Your task to perform on an android device: Do I have any events this weekend? Image 0: 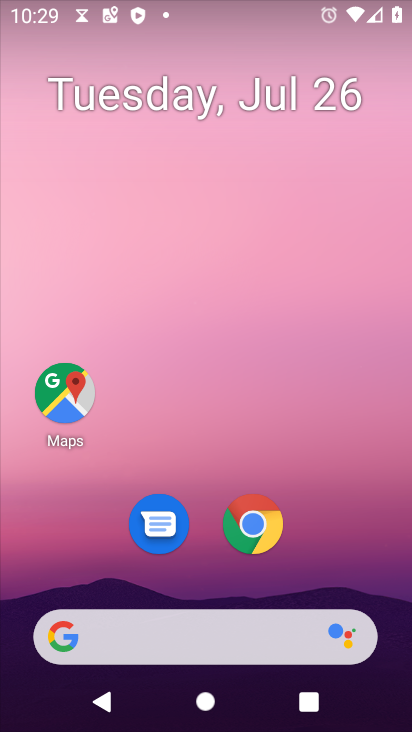
Step 0: press home button
Your task to perform on an android device: Do I have any events this weekend? Image 1: 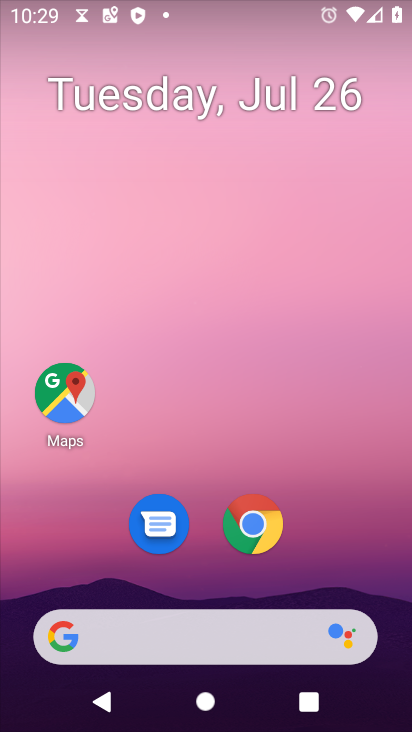
Step 1: drag from (190, 626) to (286, 64)
Your task to perform on an android device: Do I have any events this weekend? Image 2: 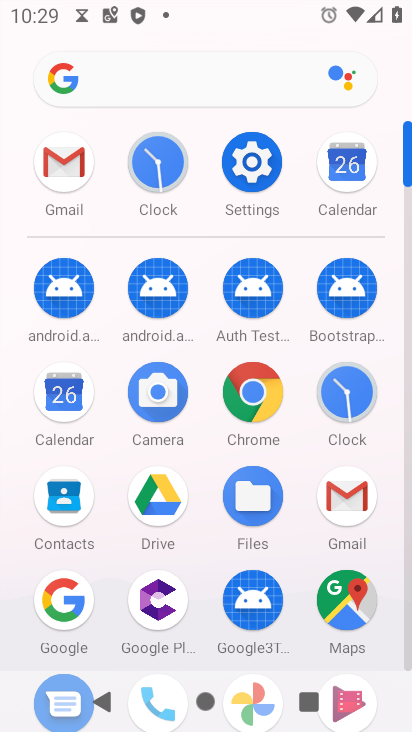
Step 2: click (61, 399)
Your task to perform on an android device: Do I have any events this weekend? Image 3: 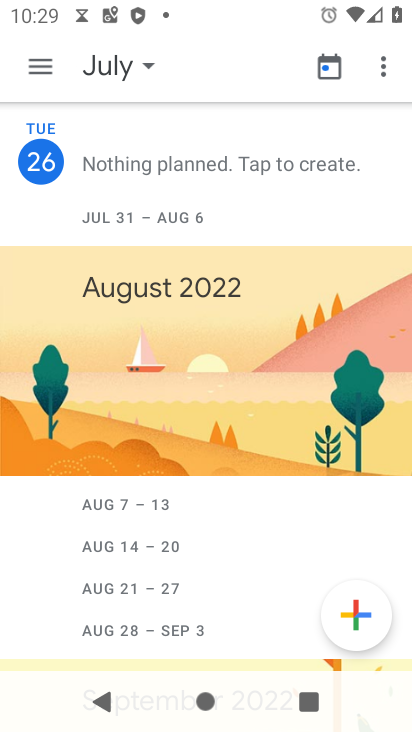
Step 3: click (103, 65)
Your task to perform on an android device: Do I have any events this weekend? Image 4: 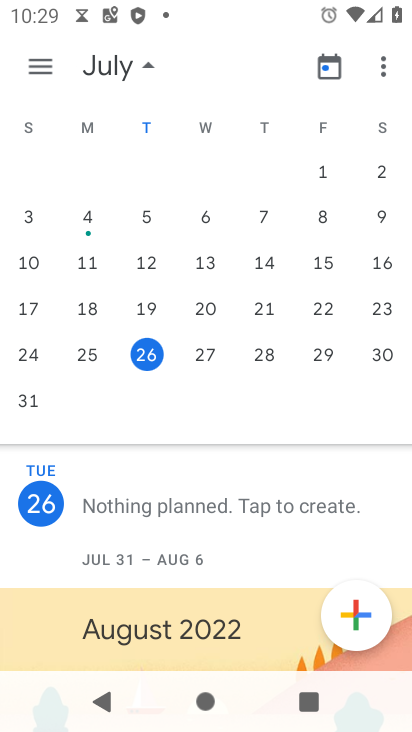
Step 4: click (382, 355)
Your task to perform on an android device: Do I have any events this weekend? Image 5: 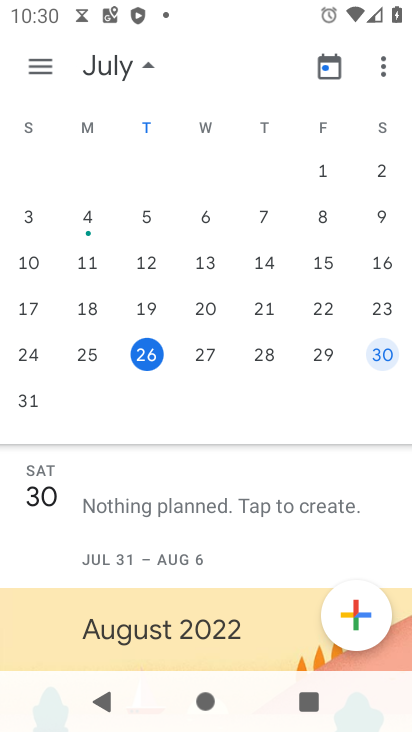
Step 5: click (36, 63)
Your task to perform on an android device: Do I have any events this weekend? Image 6: 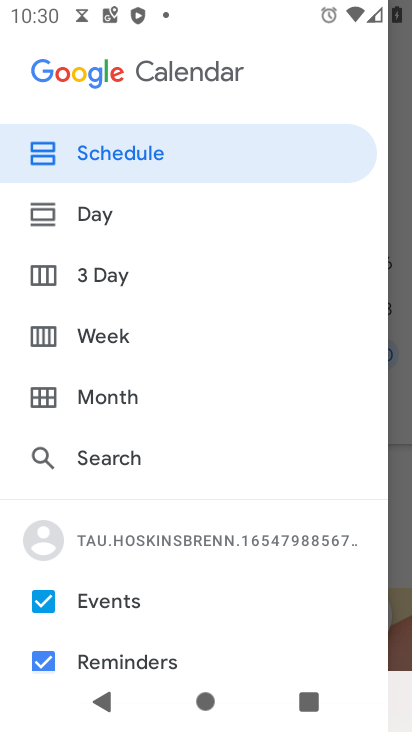
Step 6: click (106, 217)
Your task to perform on an android device: Do I have any events this weekend? Image 7: 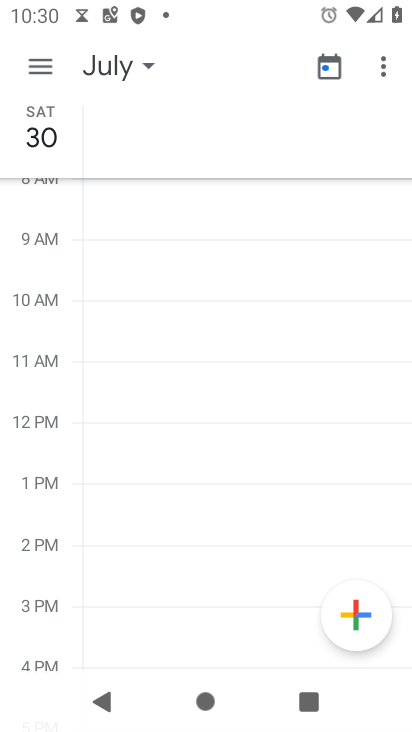
Step 7: task complete